Your task to perform on an android device: find snoozed emails in the gmail app Image 0: 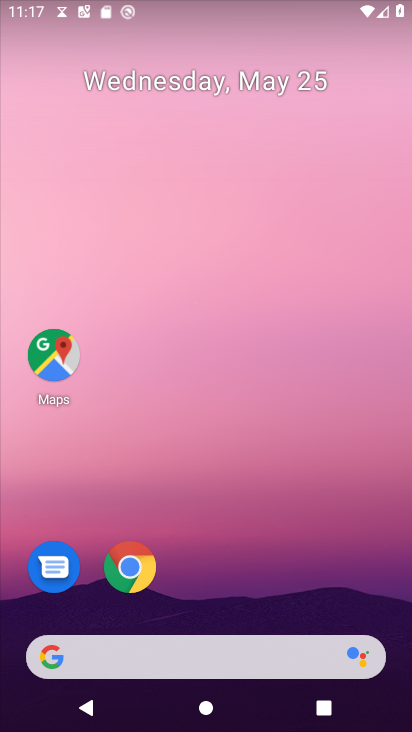
Step 0: drag from (241, 617) to (246, 48)
Your task to perform on an android device: find snoozed emails in the gmail app Image 1: 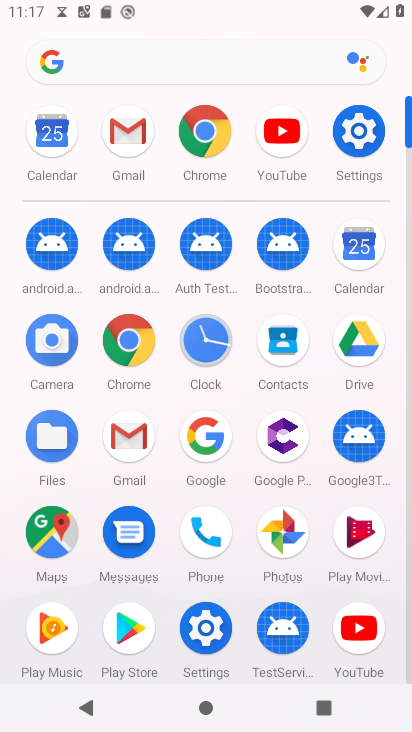
Step 1: click (128, 443)
Your task to perform on an android device: find snoozed emails in the gmail app Image 2: 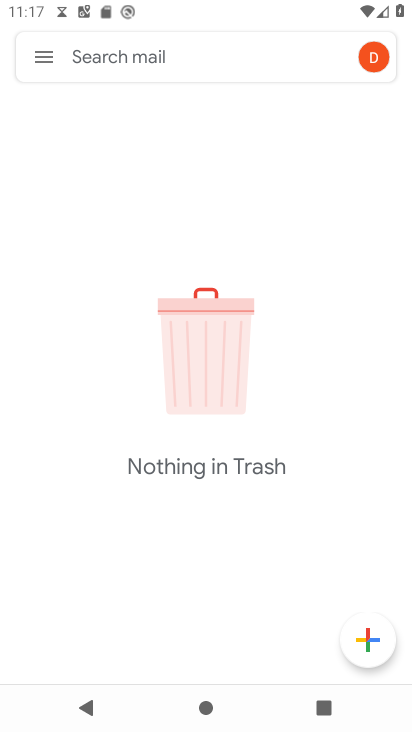
Step 2: click (45, 55)
Your task to perform on an android device: find snoozed emails in the gmail app Image 3: 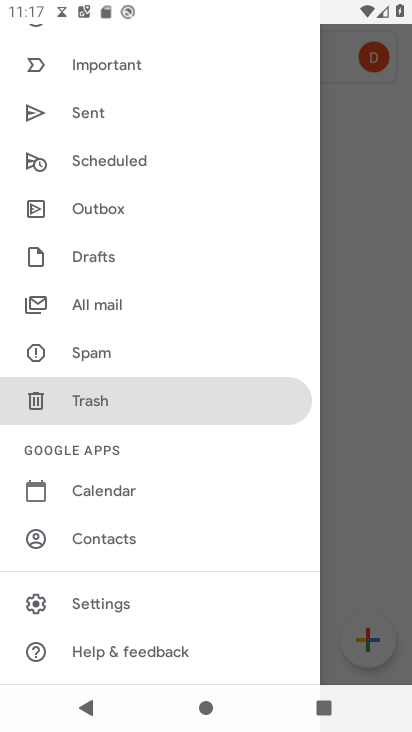
Step 3: drag from (215, 196) to (214, 400)
Your task to perform on an android device: find snoozed emails in the gmail app Image 4: 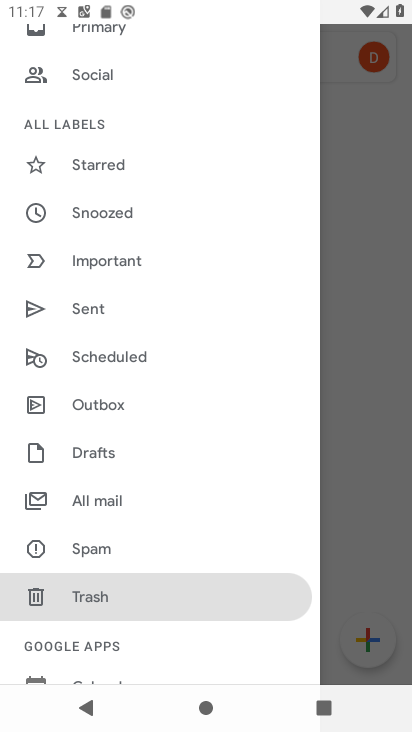
Step 4: click (129, 215)
Your task to perform on an android device: find snoozed emails in the gmail app Image 5: 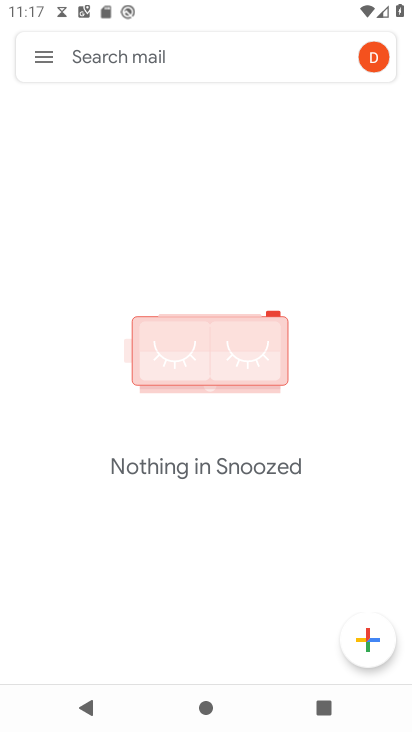
Step 5: task complete